Your task to perform on an android device: Go to calendar. Show me events next week Image 0: 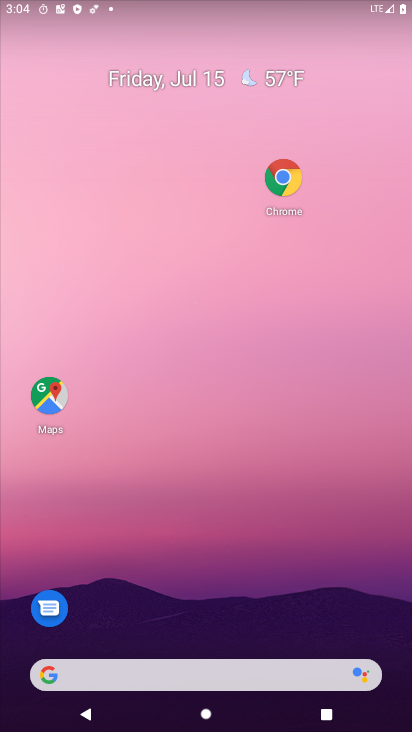
Step 0: press home button
Your task to perform on an android device: Go to calendar. Show me events next week Image 1: 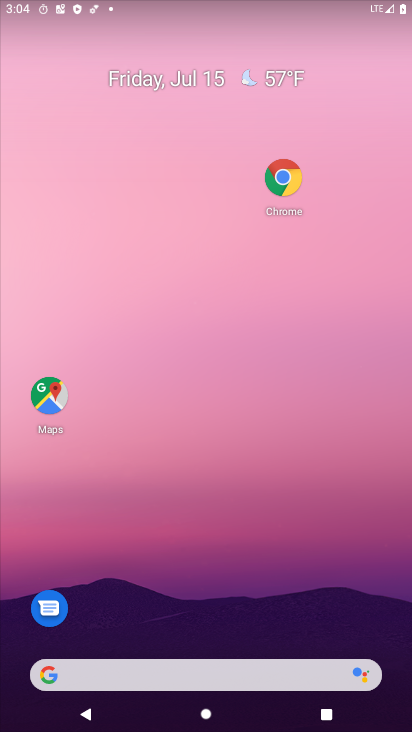
Step 1: drag from (151, 569) to (199, 68)
Your task to perform on an android device: Go to calendar. Show me events next week Image 2: 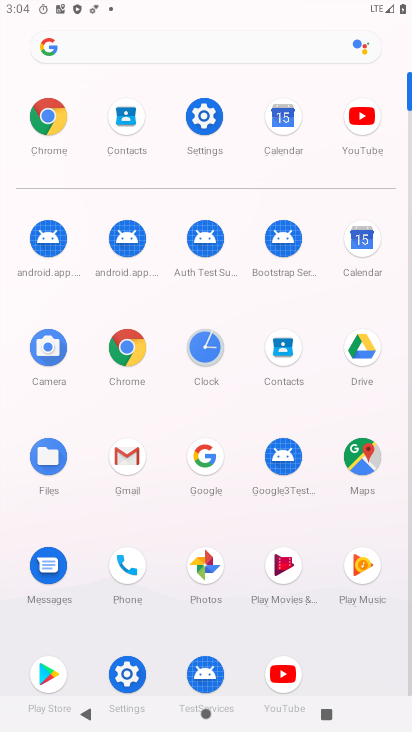
Step 2: click (357, 262)
Your task to perform on an android device: Go to calendar. Show me events next week Image 3: 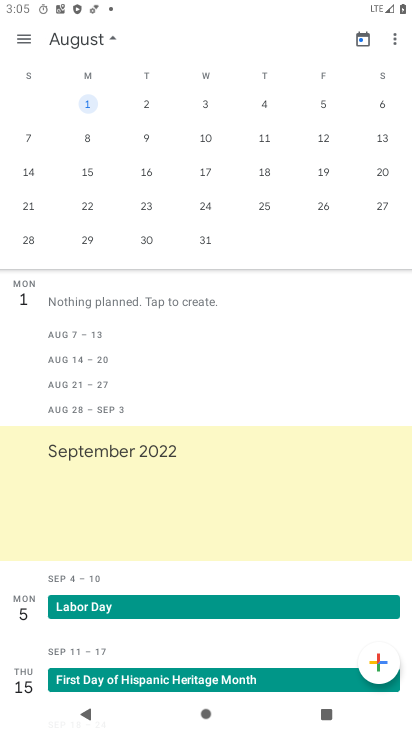
Step 3: click (110, 42)
Your task to perform on an android device: Go to calendar. Show me events next week Image 4: 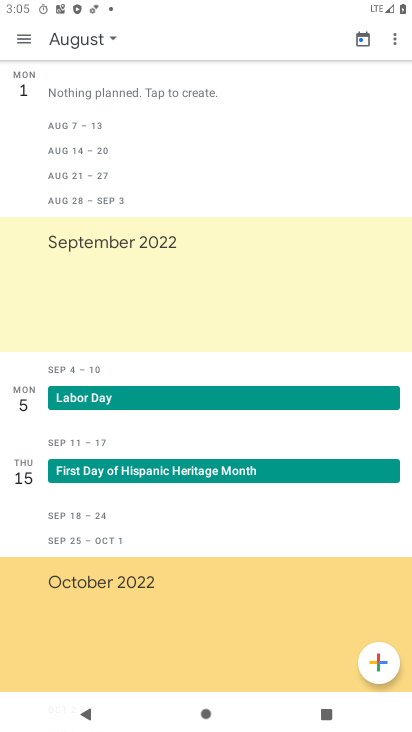
Step 4: click (110, 42)
Your task to perform on an android device: Go to calendar. Show me events next week Image 5: 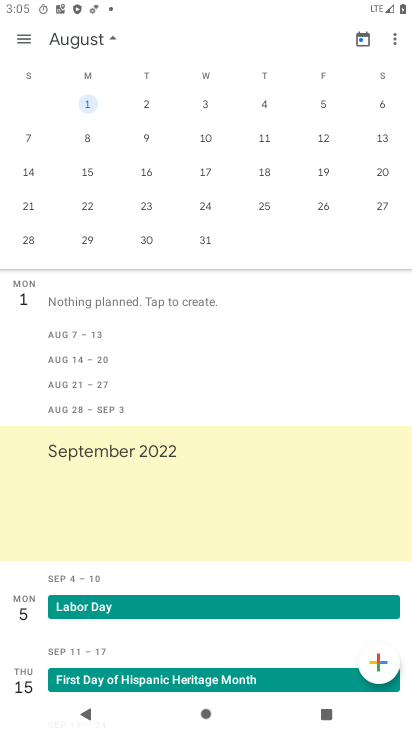
Step 5: click (159, 140)
Your task to perform on an android device: Go to calendar. Show me events next week Image 6: 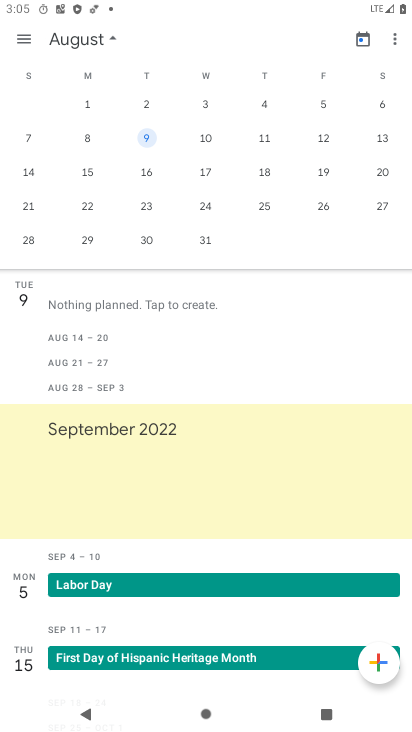
Step 6: drag from (82, 159) to (330, 172)
Your task to perform on an android device: Go to calendar. Show me events next week Image 7: 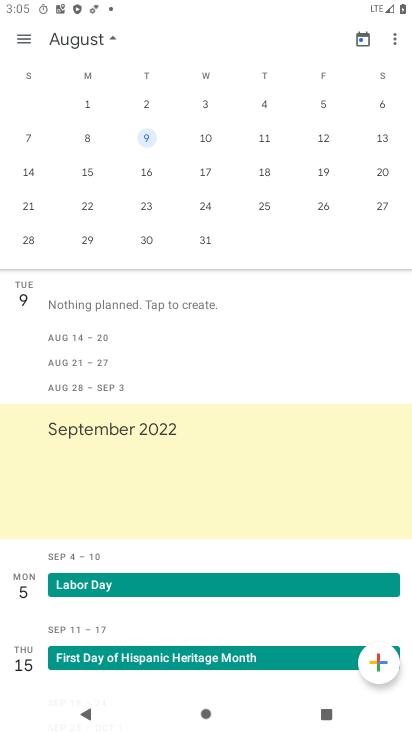
Step 7: drag from (53, 176) to (258, 452)
Your task to perform on an android device: Go to calendar. Show me events next week Image 8: 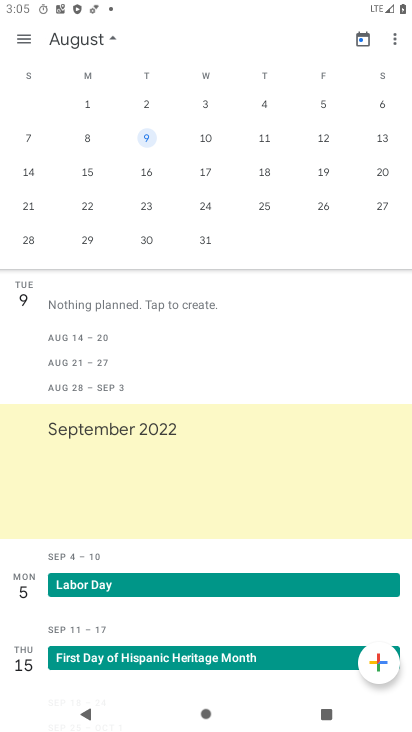
Step 8: drag from (12, 211) to (359, 188)
Your task to perform on an android device: Go to calendar. Show me events next week Image 9: 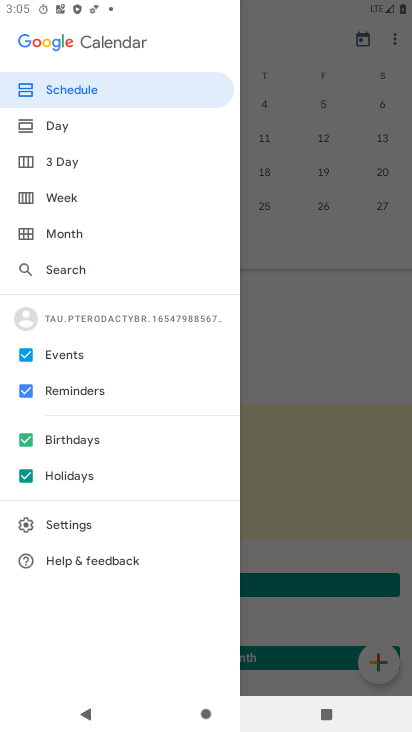
Step 9: click (303, 218)
Your task to perform on an android device: Go to calendar. Show me events next week Image 10: 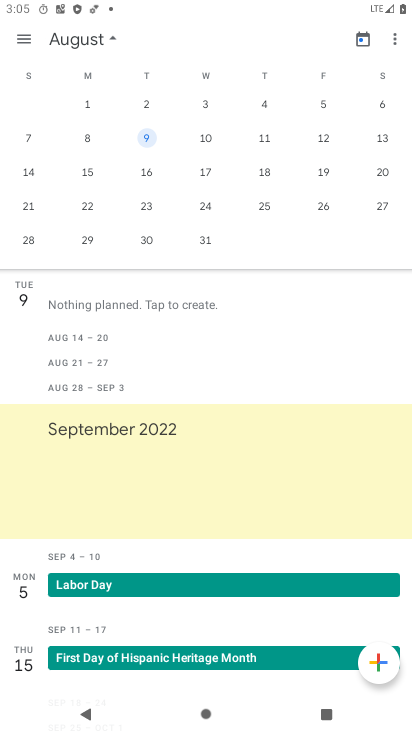
Step 10: drag from (64, 160) to (410, 158)
Your task to perform on an android device: Go to calendar. Show me events next week Image 11: 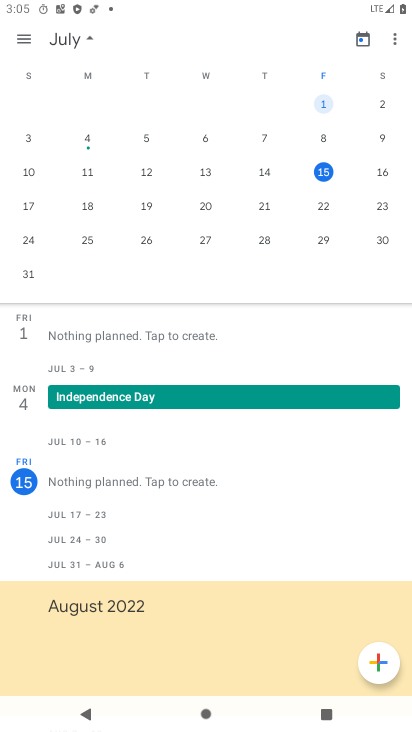
Step 11: click (79, 171)
Your task to perform on an android device: Go to calendar. Show me events next week Image 12: 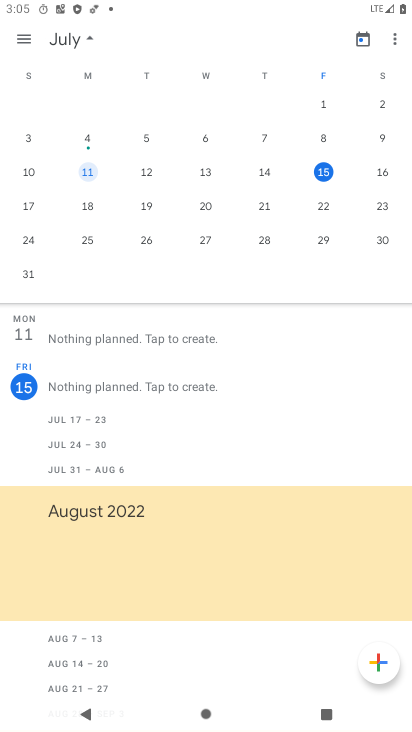
Step 12: click (321, 136)
Your task to perform on an android device: Go to calendar. Show me events next week Image 13: 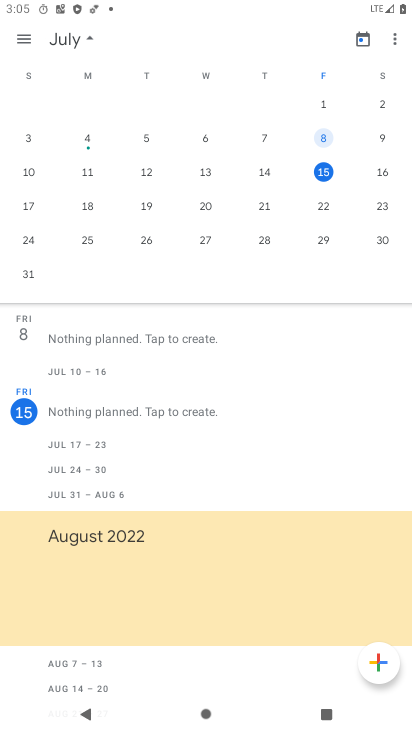
Step 13: task complete